Your task to perform on an android device: Go to CNN.com Image 0: 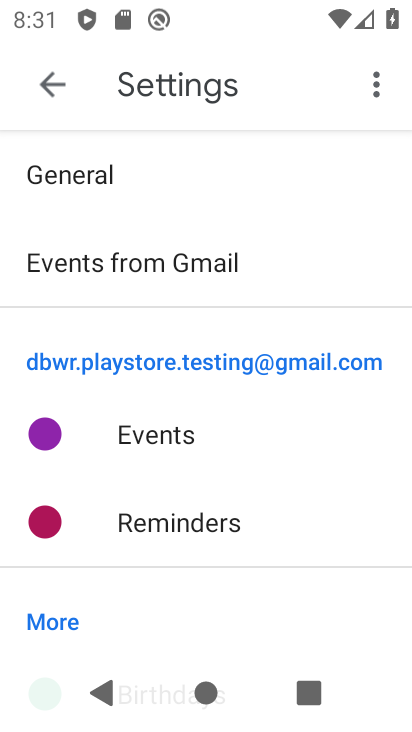
Step 0: press back button
Your task to perform on an android device: Go to CNN.com Image 1: 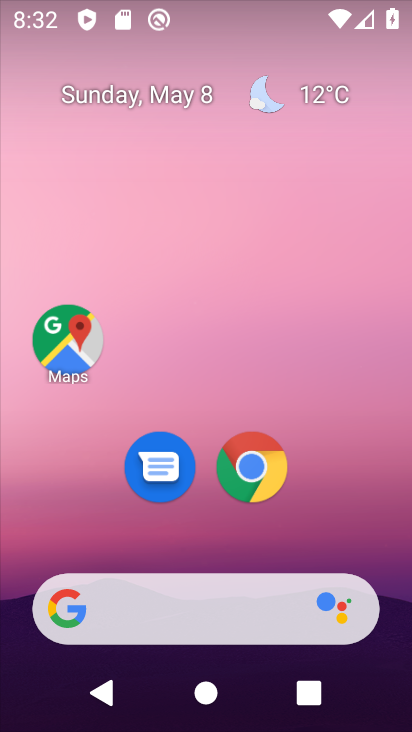
Step 1: click (262, 457)
Your task to perform on an android device: Go to CNN.com Image 2: 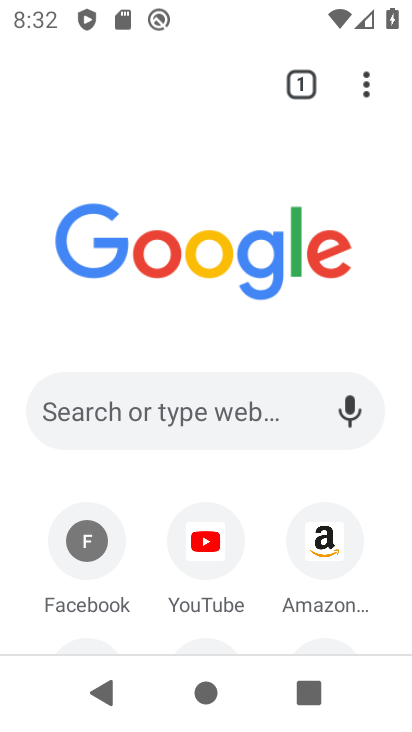
Step 2: click (124, 412)
Your task to perform on an android device: Go to CNN.com Image 3: 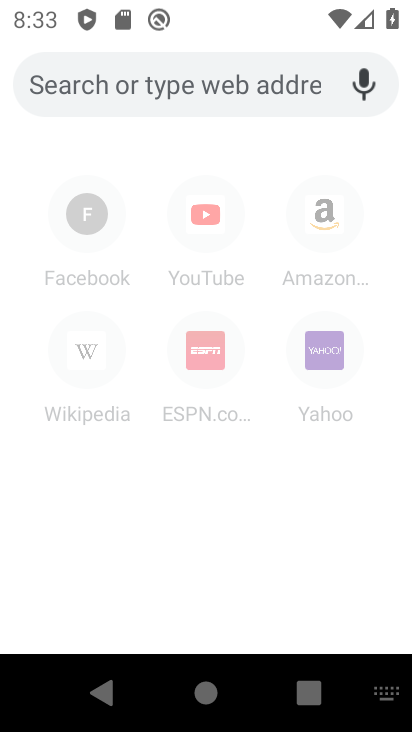
Step 3: type "cnn.com"
Your task to perform on an android device: Go to CNN.com Image 4: 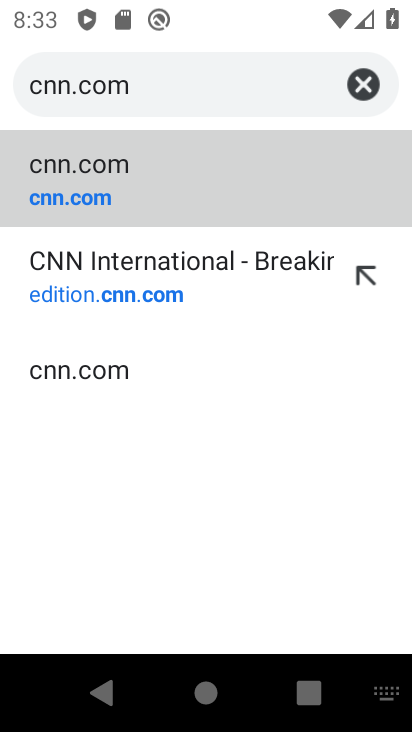
Step 4: click (218, 196)
Your task to perform on an android device: Go to CNN.com Image 5: 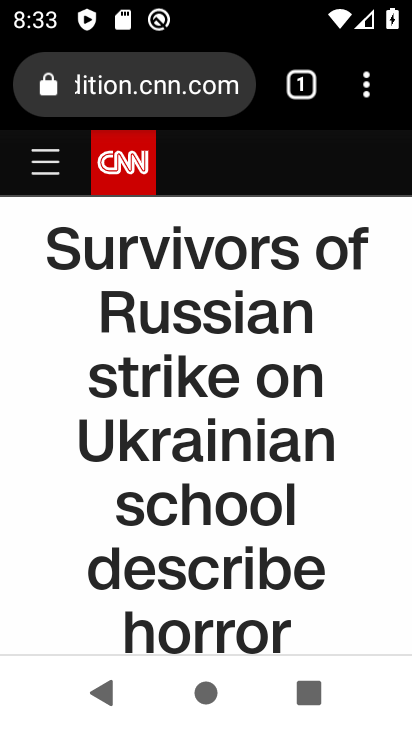
Step 5: task complete